Your task to perform on an android device: Search for Mexican restaurants on Maps Image 0: 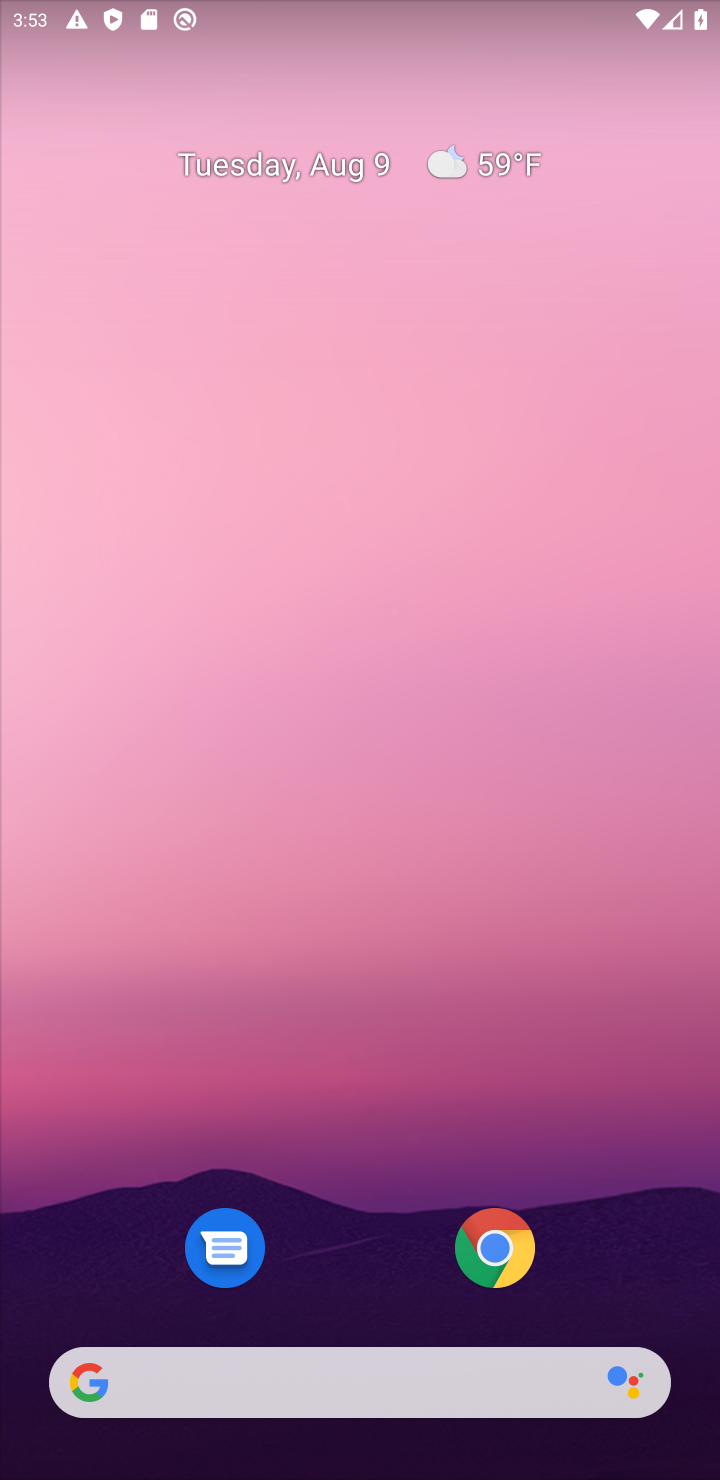
Step 0: drag from (229, 984) to (158, 435)
Your task to perform on an android device: Search for Mexican restaurants on Maps Image 1: 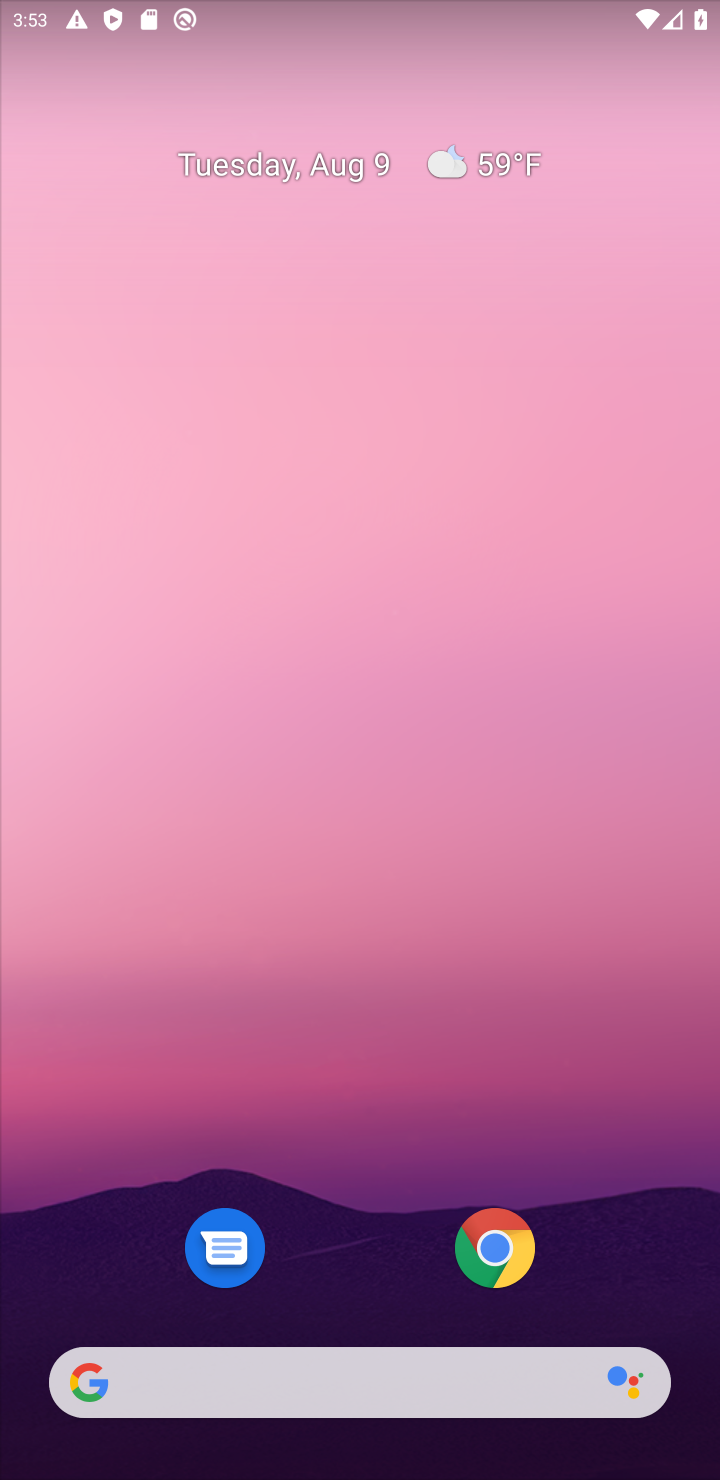
Step 1: drag from (372, 1182) to (173, 138)
Your task to perform on an android device: Search for Mexican restaurants on Maps Image 2: 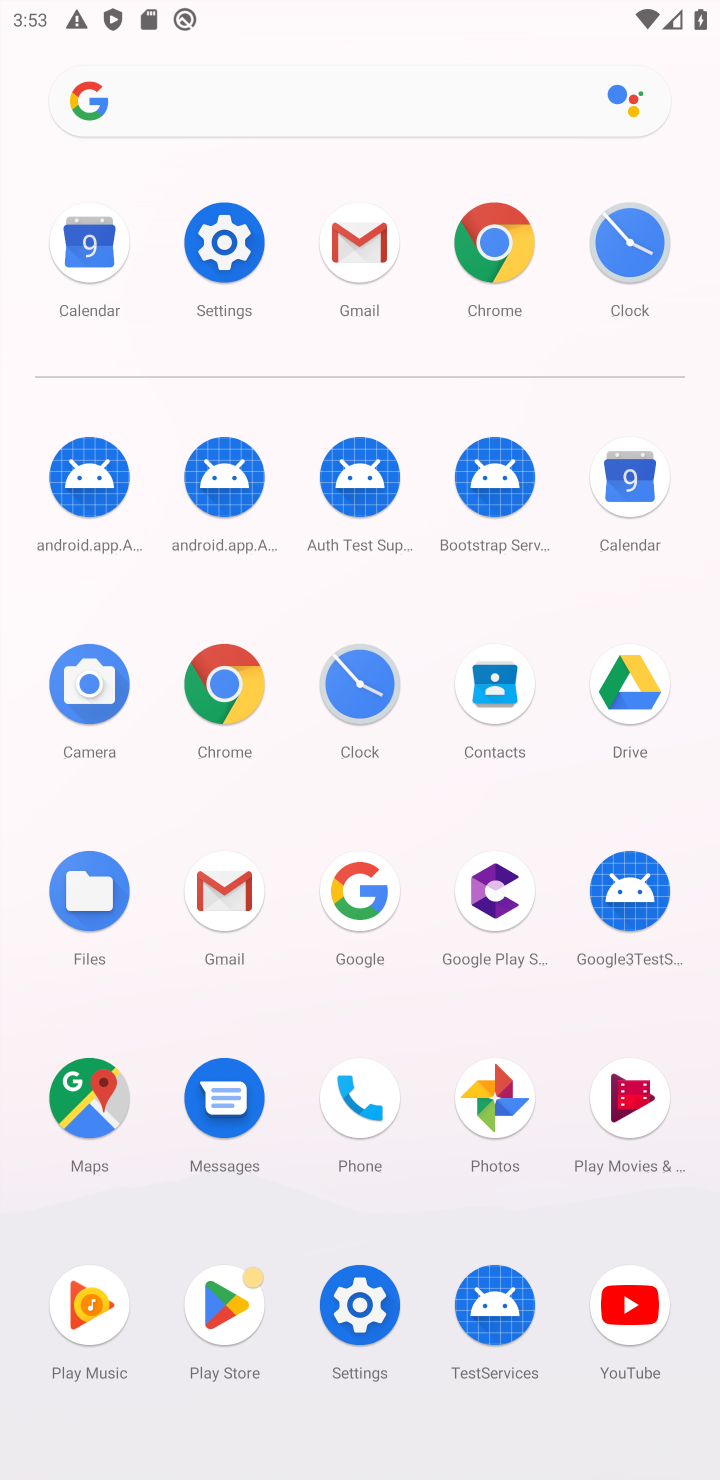
Step 2: click (92, 1094)
Your task to perform on an android device: Search for Mexican restaurants on Maps Image 3: 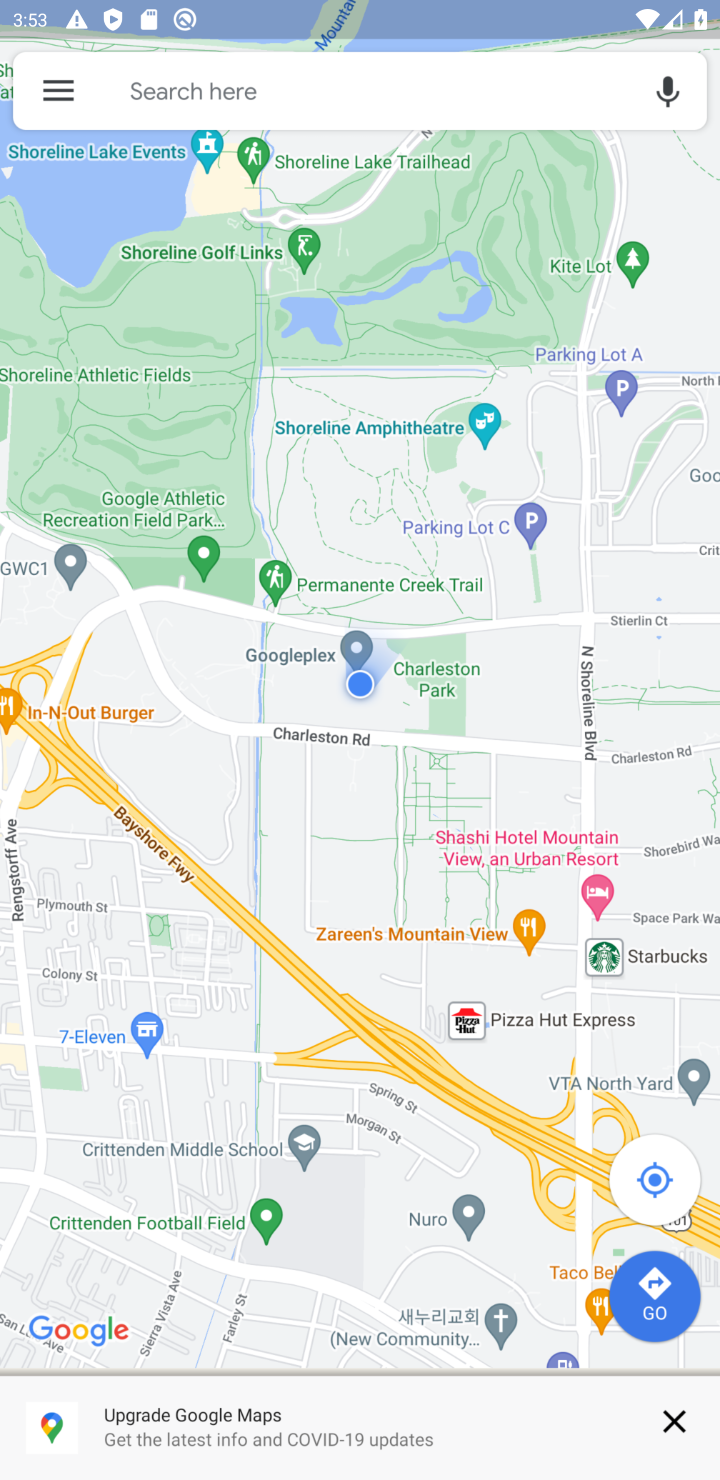
Step 3: click (268, 71)
Your task to perform on an android device: Search for Mexican restaurants on Maps Image 4: 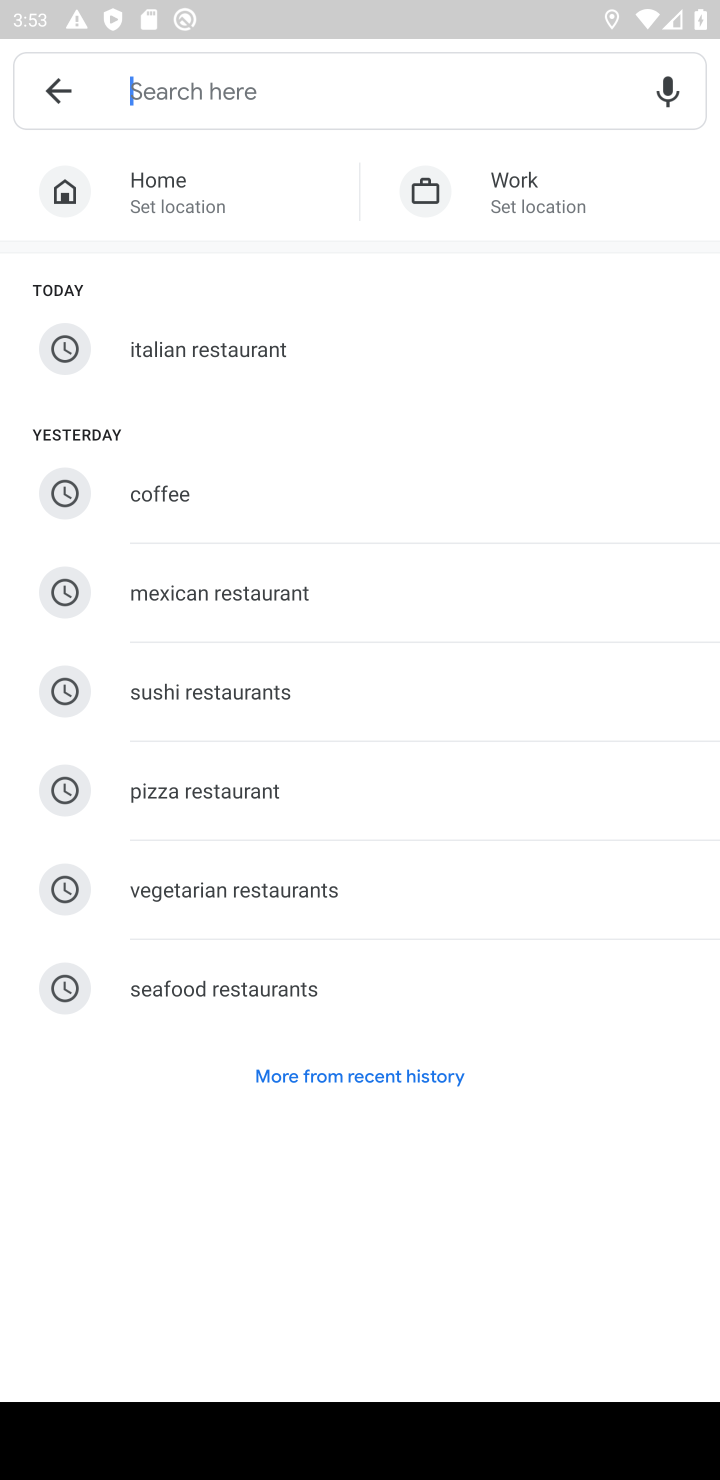
Step 4: type "Mexican restaurants"
Your task to perform on an android device: Search for Mexican restaurants on Maps Image 5: 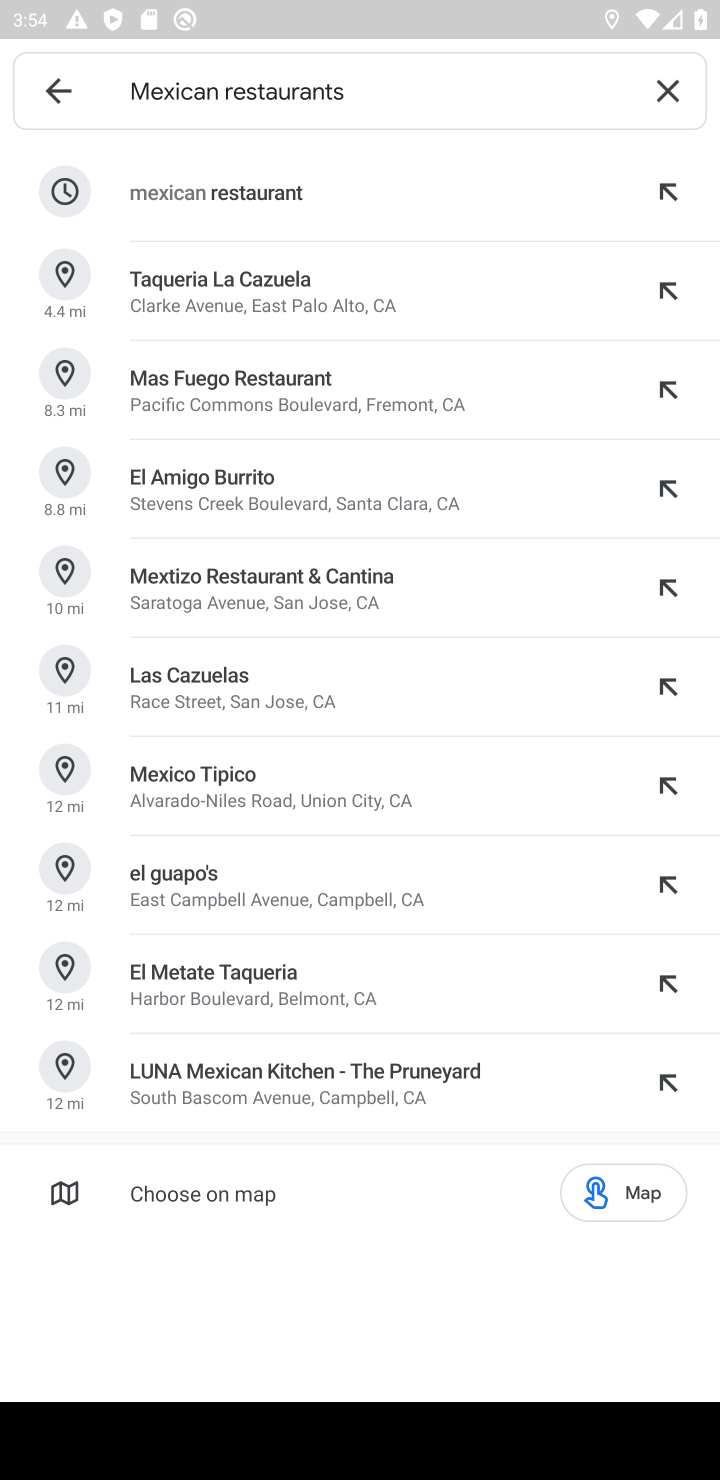
Step 5: press enter
Your task to perform on an android device: Search for Mexican restaurants on Maps Image 6: 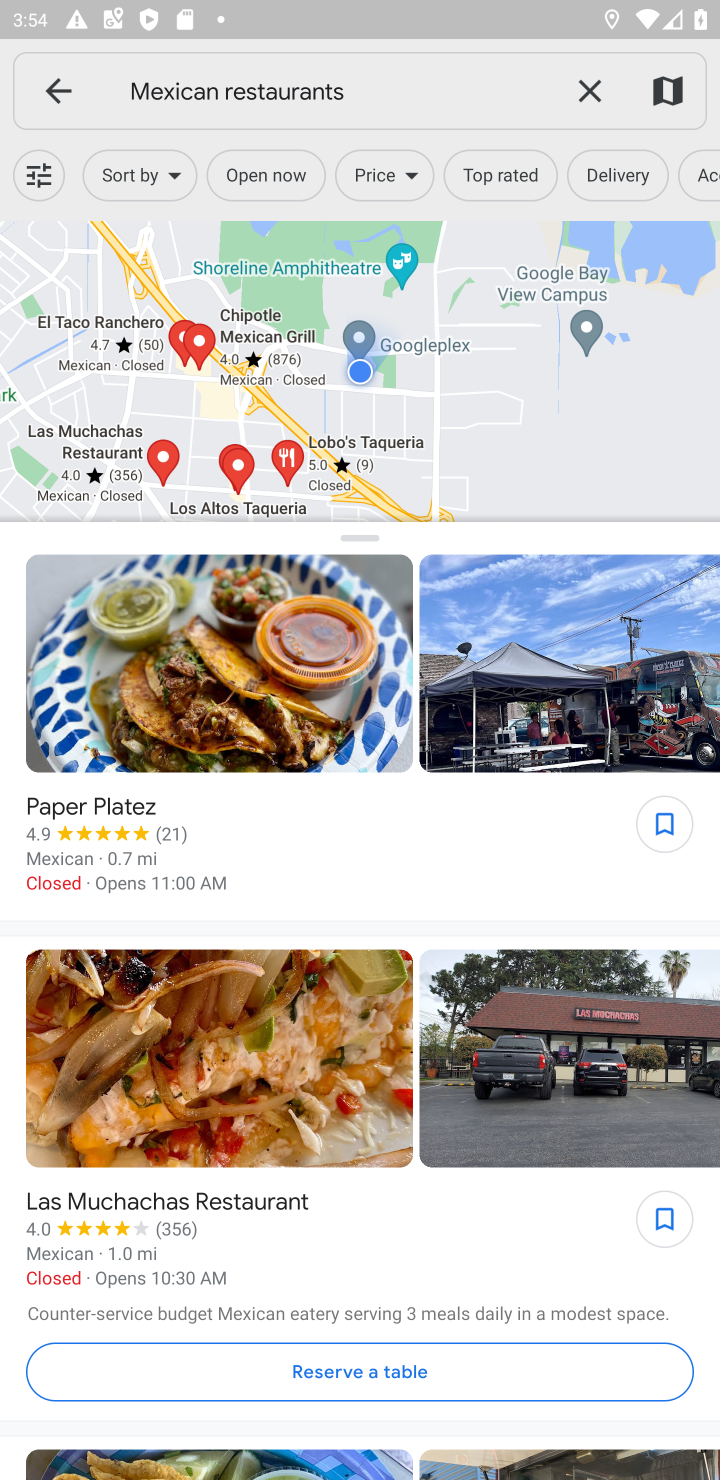
Step 6: task complete